Your task to perform on an android device: add a contact Image 0: 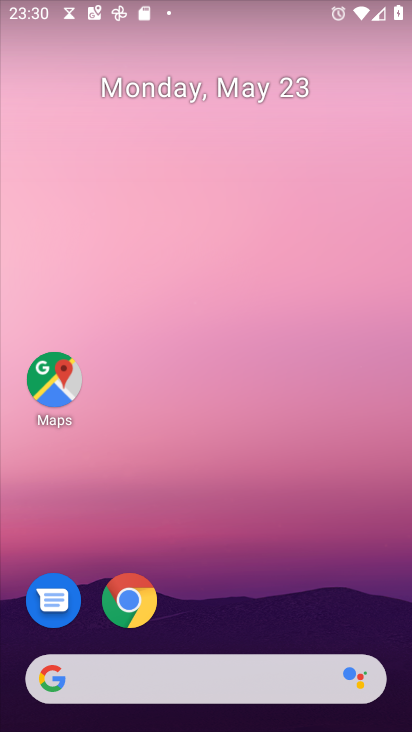
Step 0: drag from (222, 723) to (225, 189)
Your task to perform on an android device: add a contact Image 1: 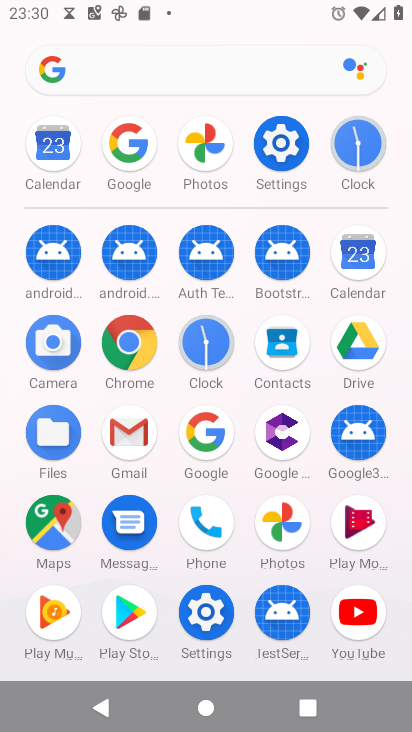
Step 1: click (279, 356)
Your task to perform on an android device: add a contact Image 2: 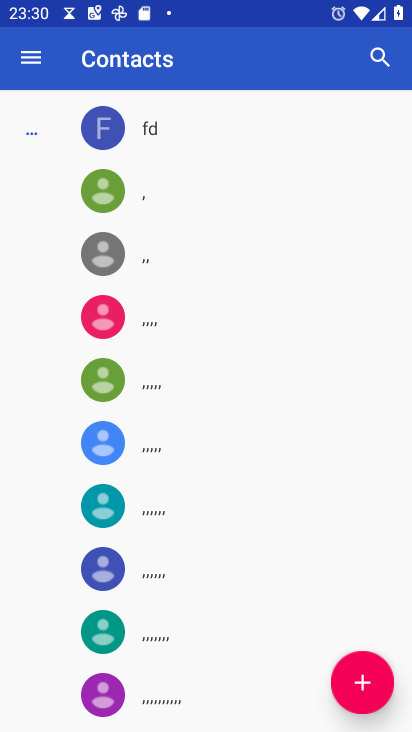
Step 2: click (362, 675)
Your task to perform on an android device: add a contact Image 3: 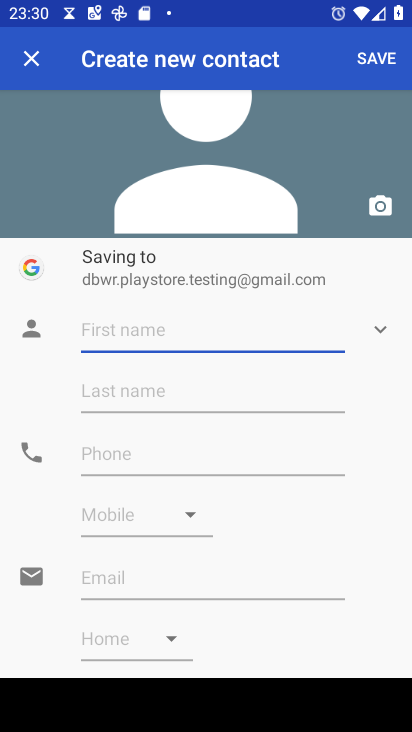
Step 3: type "neer"
Your task to perform on an android device: add a contact Image 4: 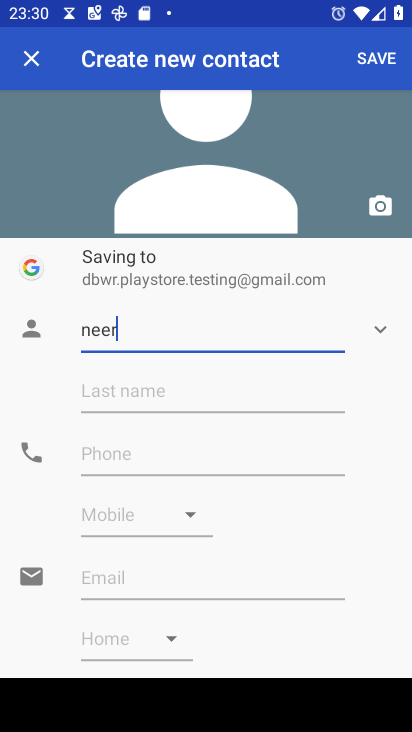
Step 4: click (163, 458)
Your task to perform on an android device: add a contact Image 5: 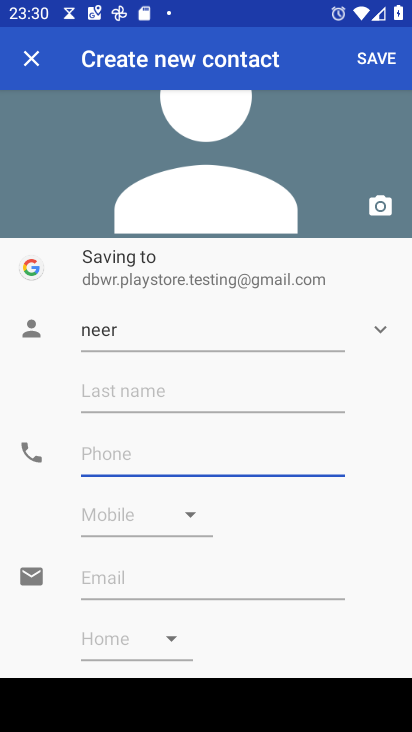
Step 5: type "9989898"
Your task to perform on an android device: add a contact Image 6: 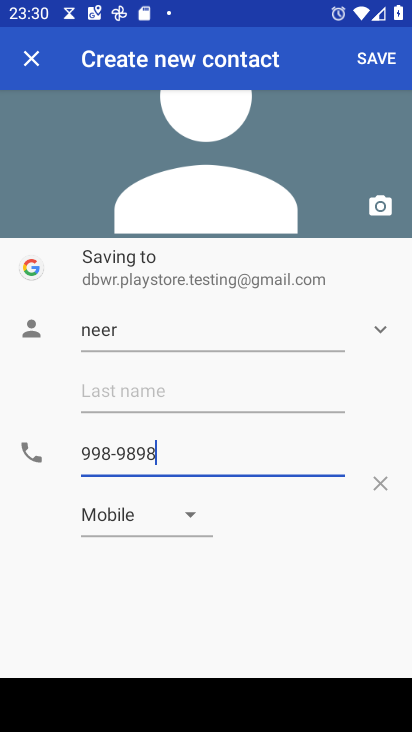
Step 6: type ""
Your task to perform on an android device: add a contact Image 7: 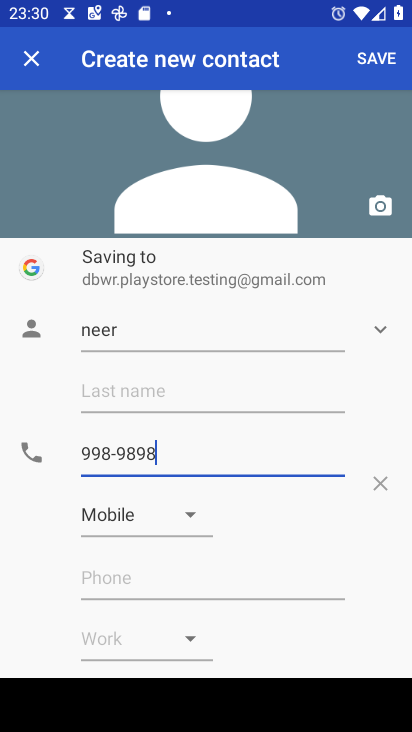
Step 7: click (382, 58)
Your task to perform on an android device: add a contact Image 8: 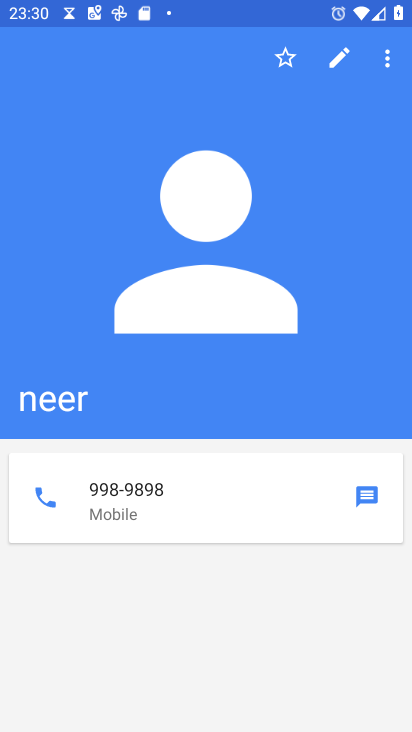
Step 8: task complete